Your task to perform on an android device: Open Amazon Image 0: 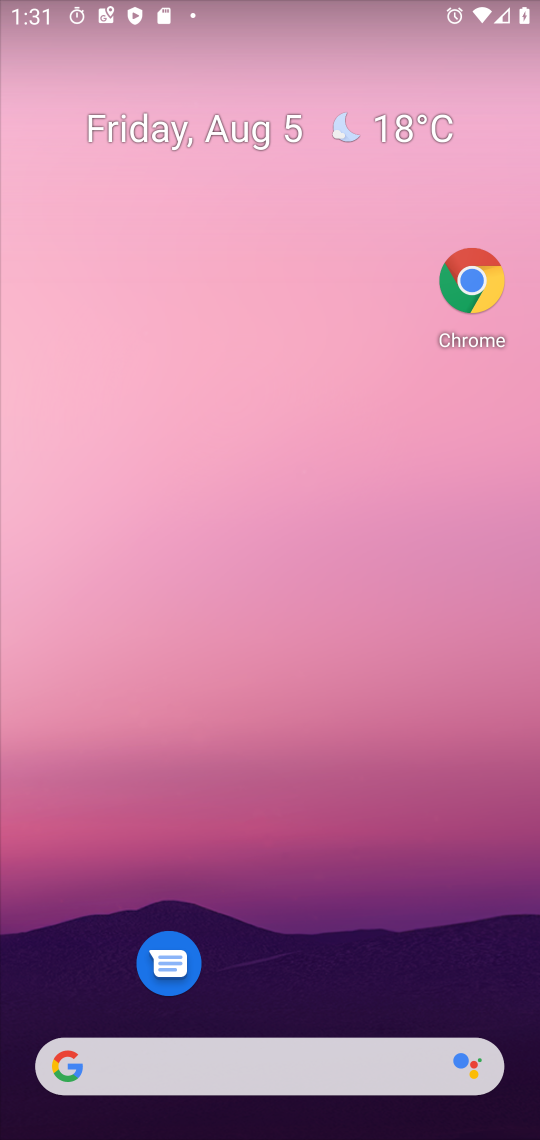
Step 0: drag from (187, 842) to (81, 15)
Your task to perform on an android device: Open Amazon Image 1: 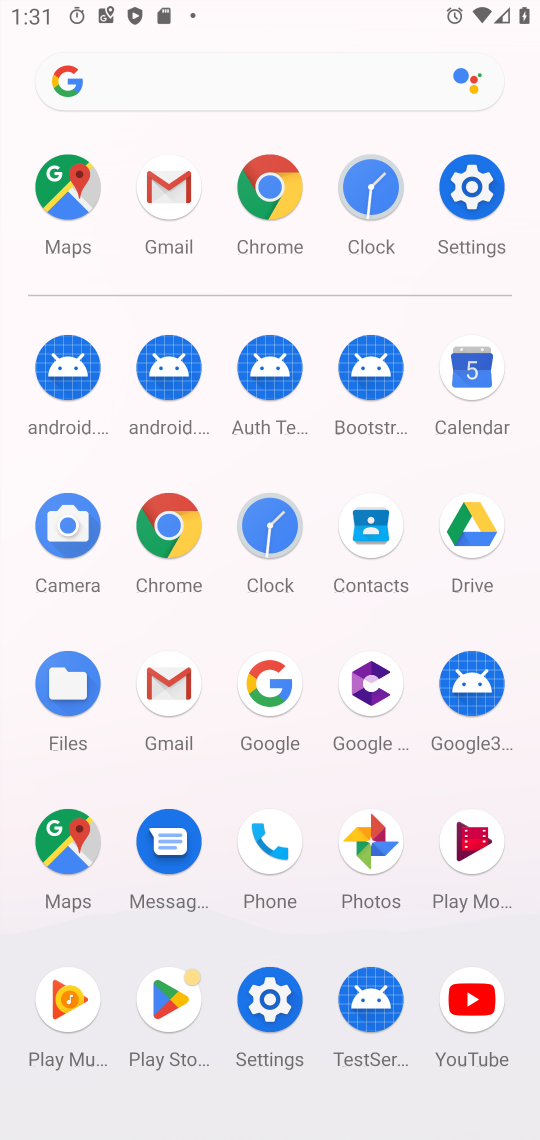
Step 1: click (265, 183)
Your task to perform on an android device: Open Amazon Image 2: 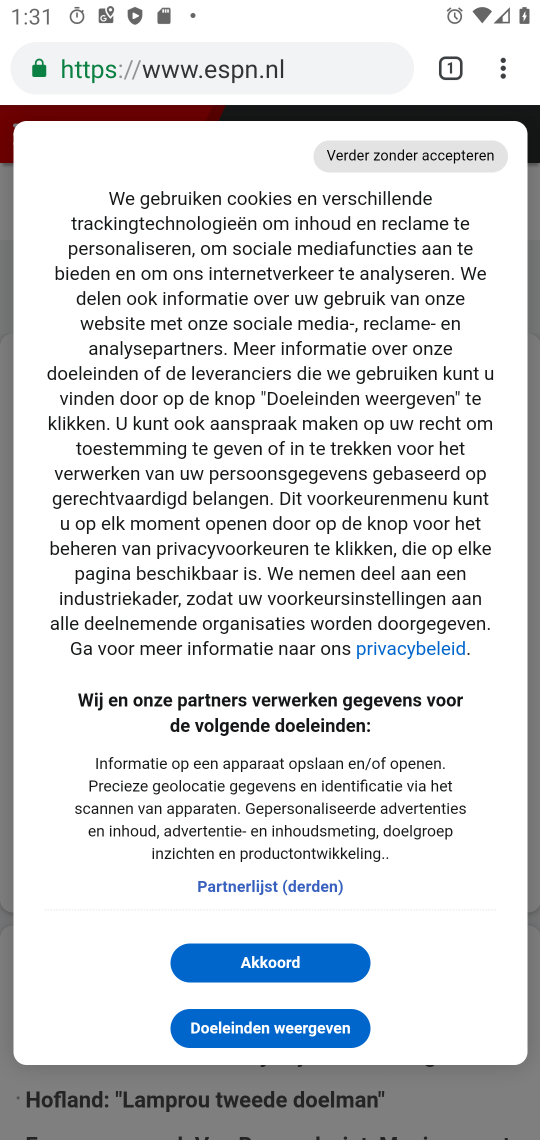
Step 2: click (321, 42)
Your task to perform on an android device: Open Amazon Image 3: 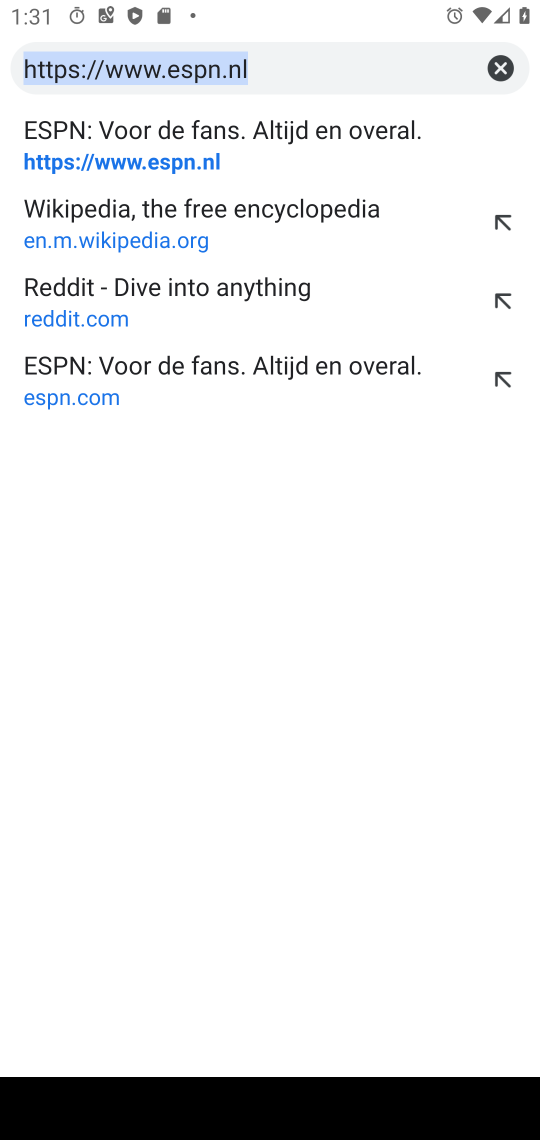
Step 3: click (487, 70)
Your task to perform on an android device: Open Amazon Image 4: 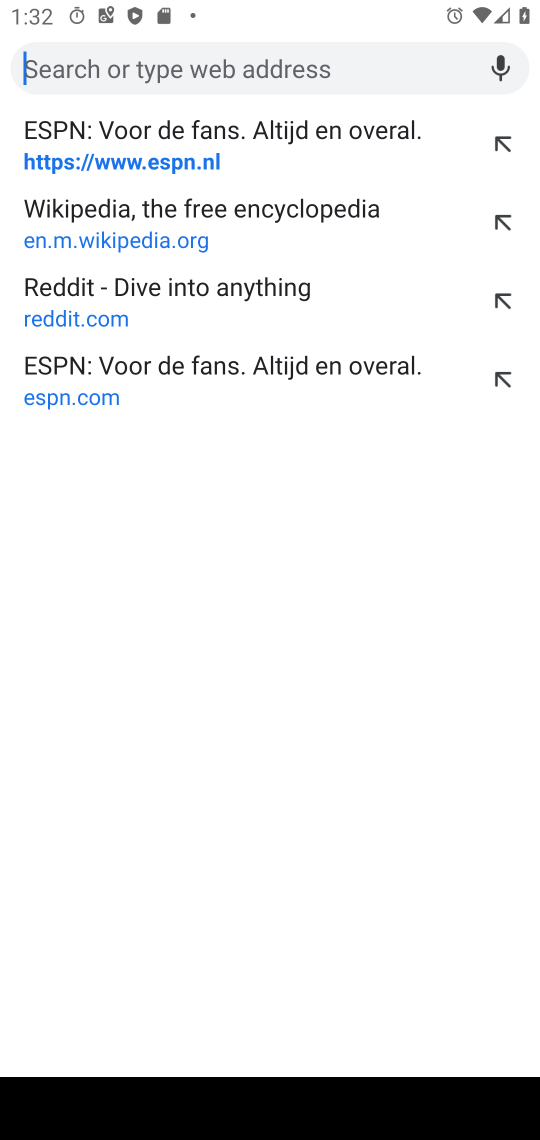
Step 4: type "Amazon"
Your task to perform on an android device: Open Amazon Image 5: 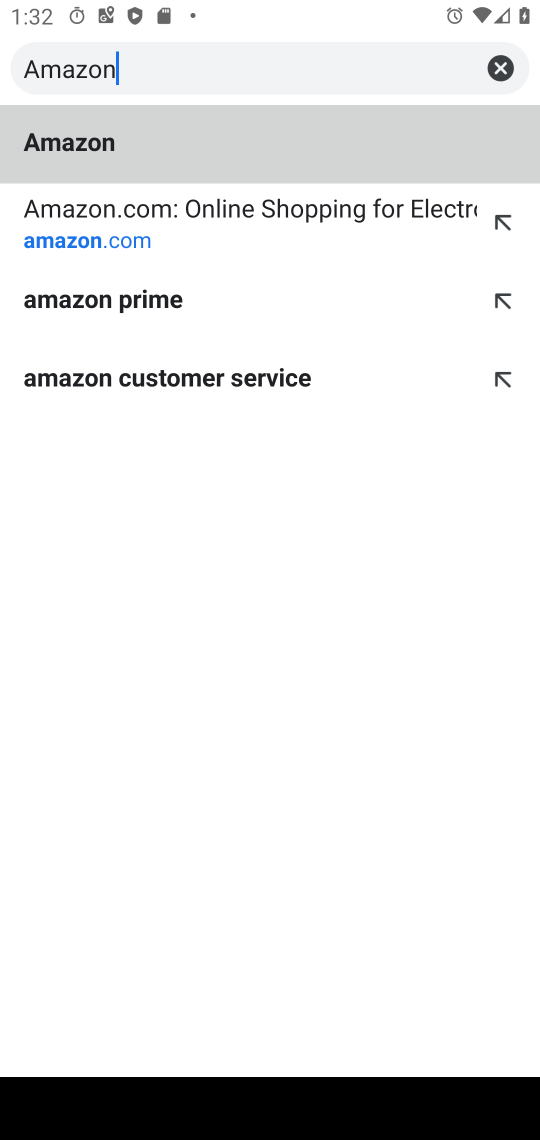
Step 5: click (58, 253)
Your task to perform on an android device: Open Amazon Image 6: 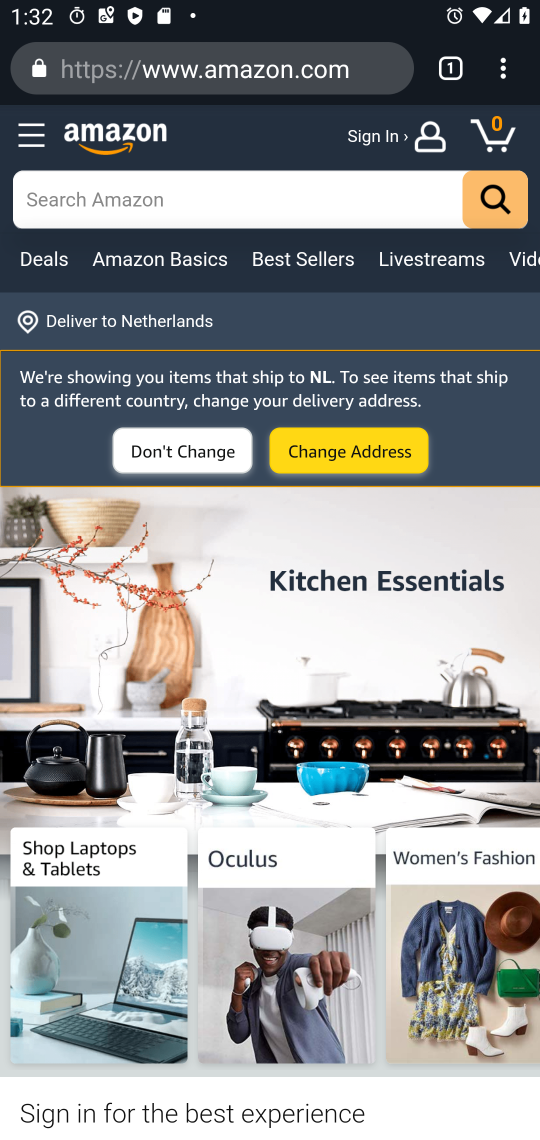
Step 6: task complete